Your task to perform on an android device: check the backup settings in the google photos Image 0: 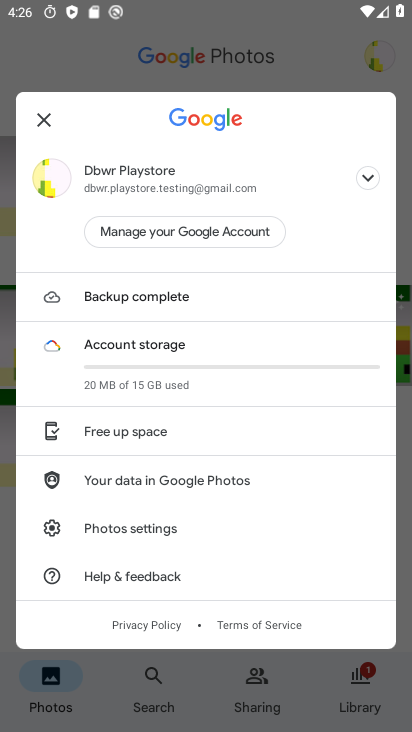
Step 0: press home button
Your task to perform on an android device: check the backup settings in the google photos Image 1: 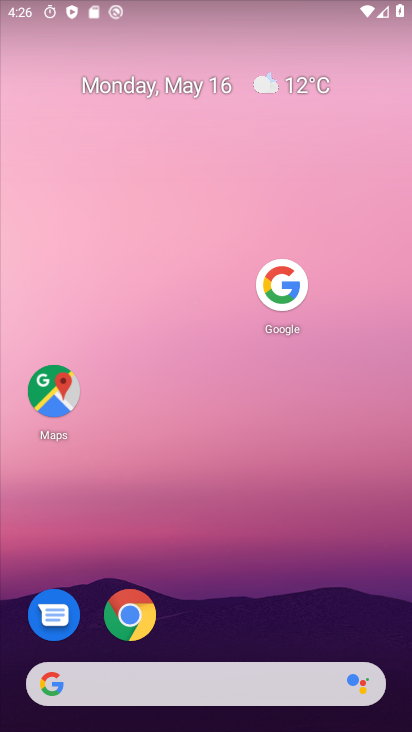
Step 1: drag from (204, 635) to (362, 462)
Your task to perform on an android device: check the backup settings in the google photos Image 2: 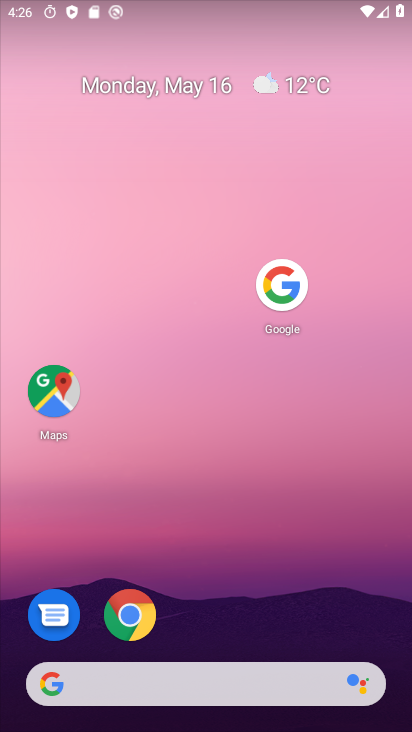
Step 2: drag from (198, 653) to (132, 35)
Your task to perform on an android device: check the backup settings in the google photos Image 3: 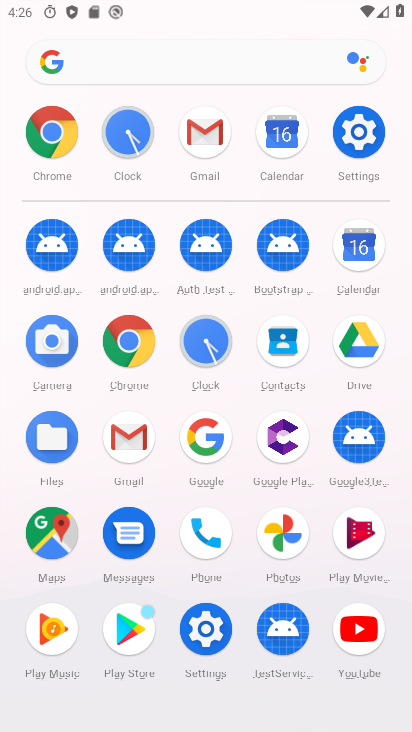
Step 3: click (272, 526)
Your task to perform on an android device: check the backup settings in the google photos Image 4: 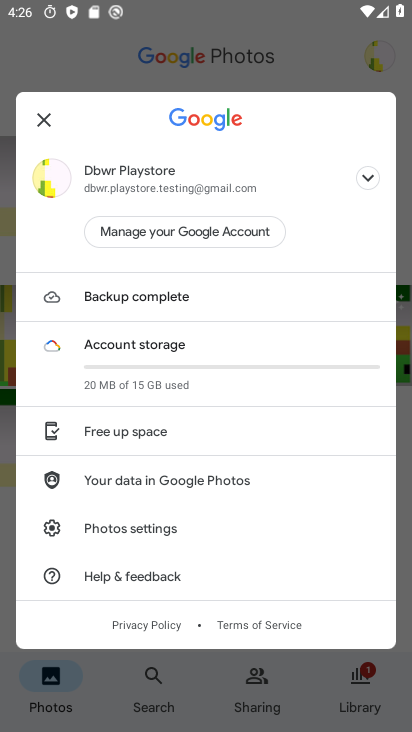
Step 4: click (130, 515)
Your task to perform on an android device: check the backup settings in the google photos Image 5: 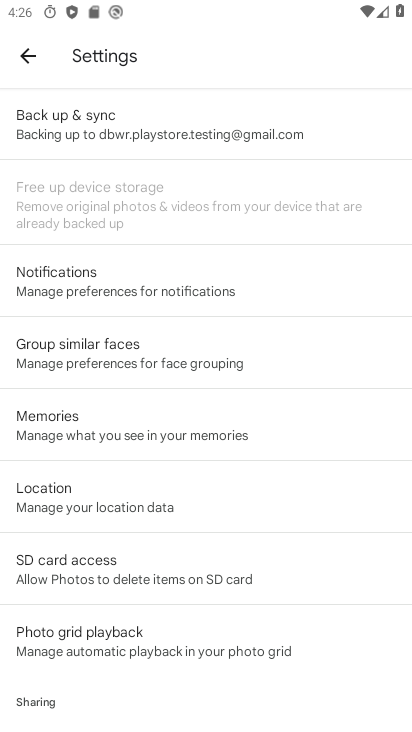
Step 5: click (104, 131)
Your task to perform on an android device: check the backup settings in the google photos Image 6: 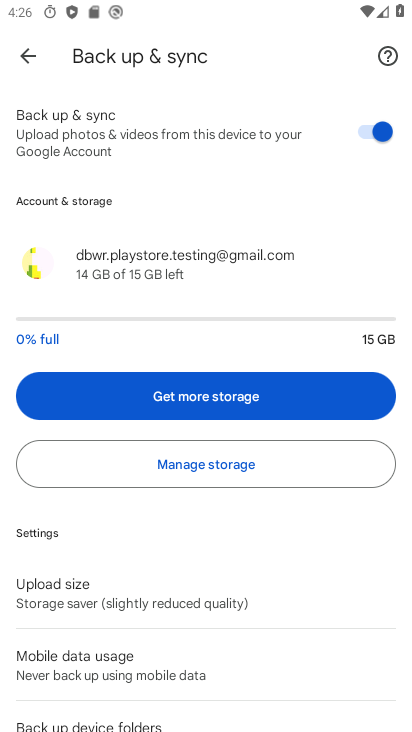
Step 6: click (99, 588)
Your task to perform on an android device: check the backup settings in the google photos Image 7: 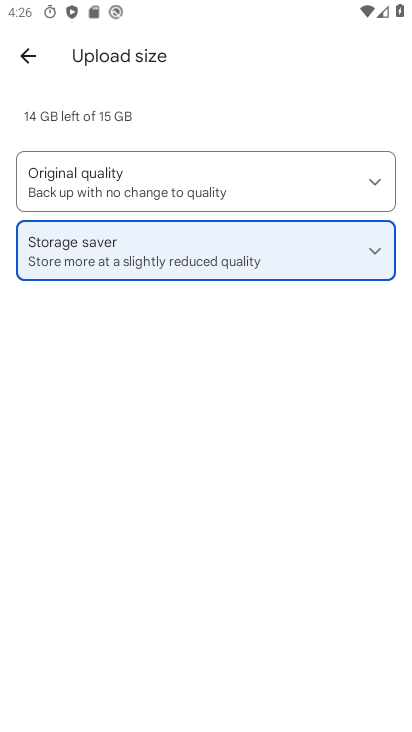
Step 7: task complete